Your task to perform on an android device: turn notification dots off Image 0: 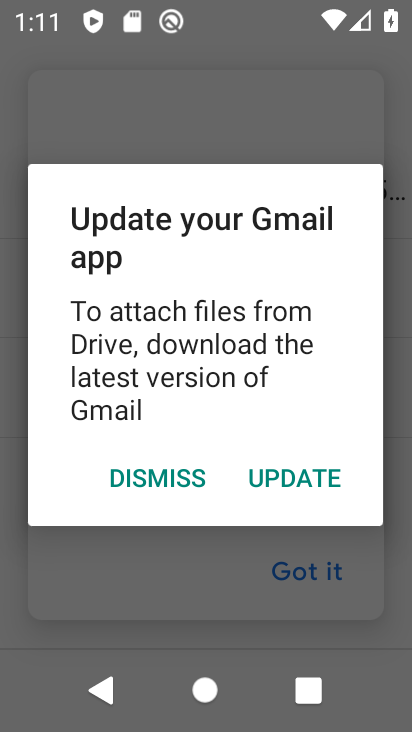
Step 0: press home button
Your task to perform on an android device: turn notification dots off Image 1: 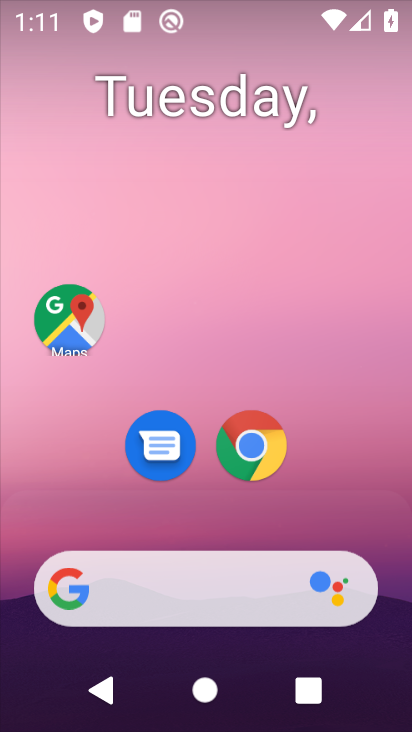
Step 1: drag from (209, 519) to (195, 30)
Your task to perform on an android device: turn notification dots off Image 2: 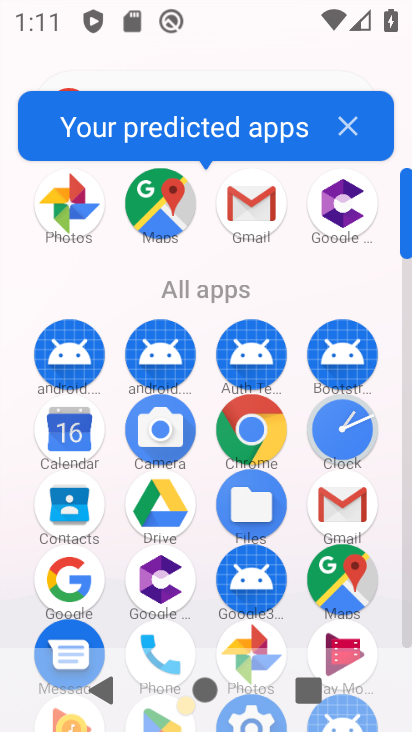
Step 2: drag from (203, 553) to (206, 147)
Your task to perform on an android device: turn notification dots off Image 3: 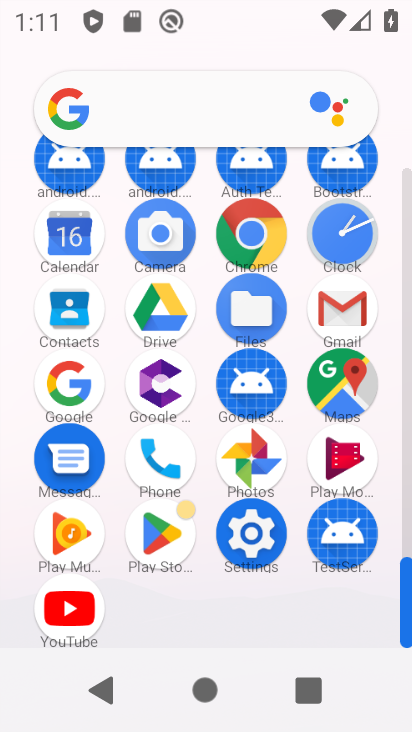
Step 3: click (245, 526)
Your task to perform on an android device: turn notification dots off Image 4: 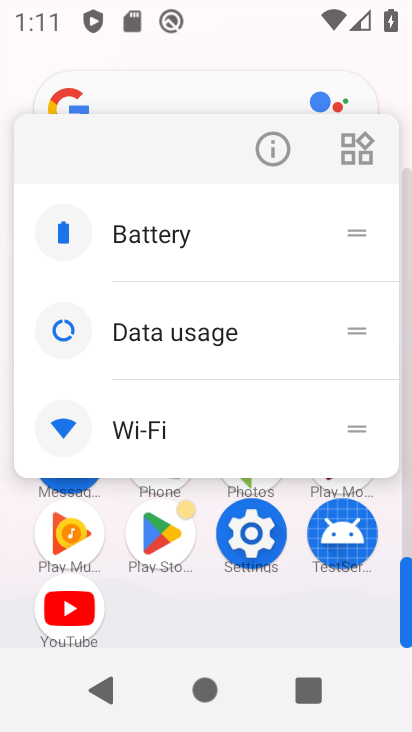
Step 4: click (246, 532)
Your task to perform on an android device: turn notification dots off Image 5: 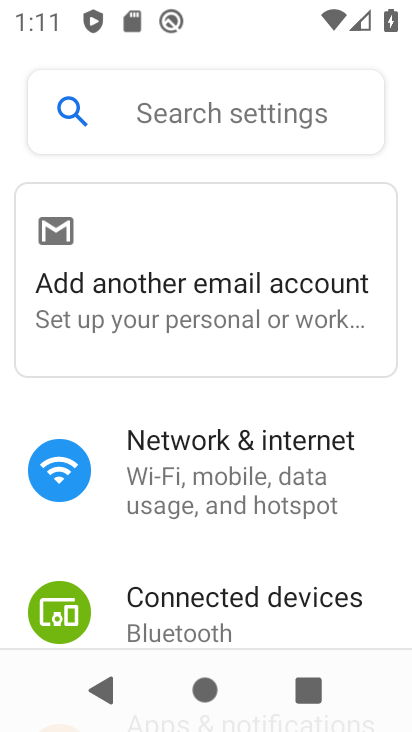
Step 5: drag from (256, 608) to (243, 195)
Your task to perform on an android device: turn notification dots off Image 6: 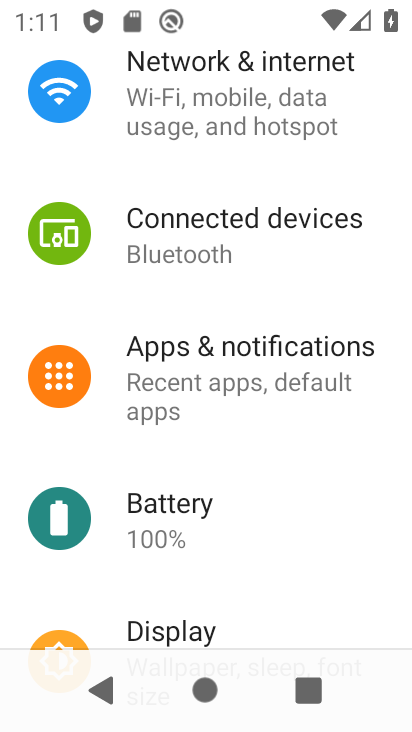
Step 6: click (107, 374)
Your task to perform on an android device: turn notification dots off Image 7: 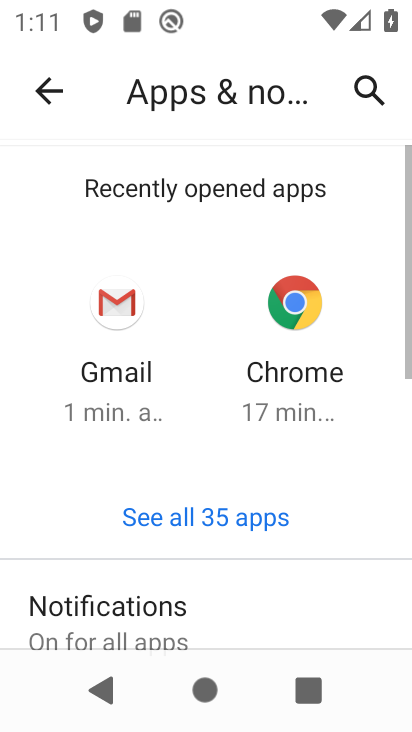
Step 7: click (215, 602)
Your task to perform on an android device: turn notification dots off Image 8: 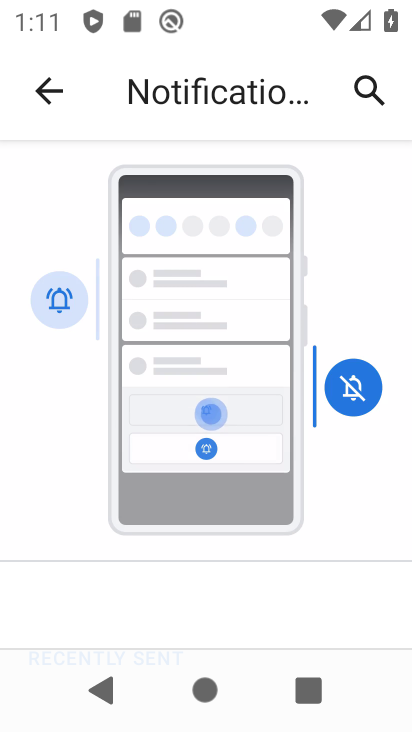
Step 8: drag from (220, 602) to (203, 149)
Your task to perform on an android device: turn notification dots off Image 9: 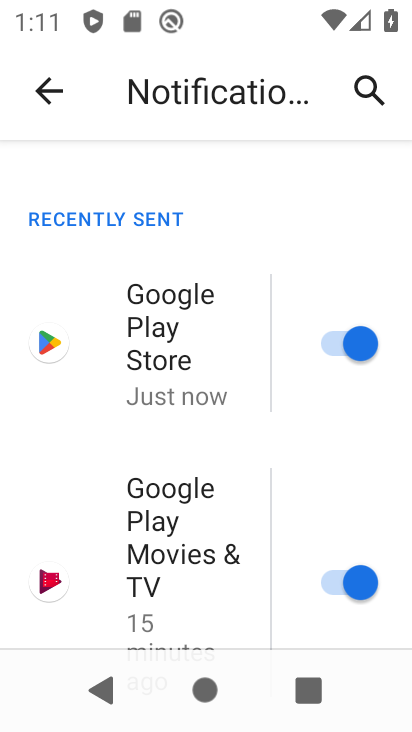
Step 9: drag from (201, 621) to (199, 65)
Your task to perform on an android device: turn notification dots off Image 10: 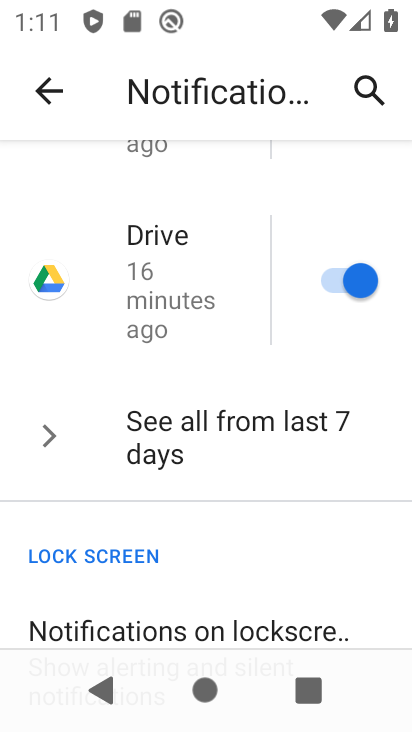
Step 10: drag from (212, 556) to (224, 94)
Your task to perform on an android device: turn notification dots off Image 11: 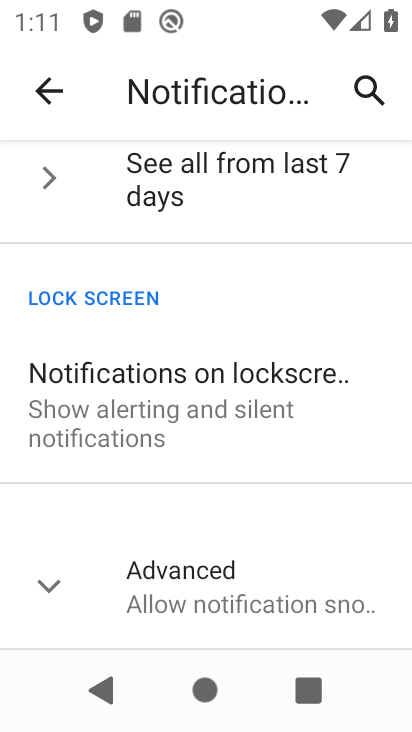
Step 11: drag from (214, 149) to (274, 727)
Your task to perform on an android device: turn notification dots off Image 12: 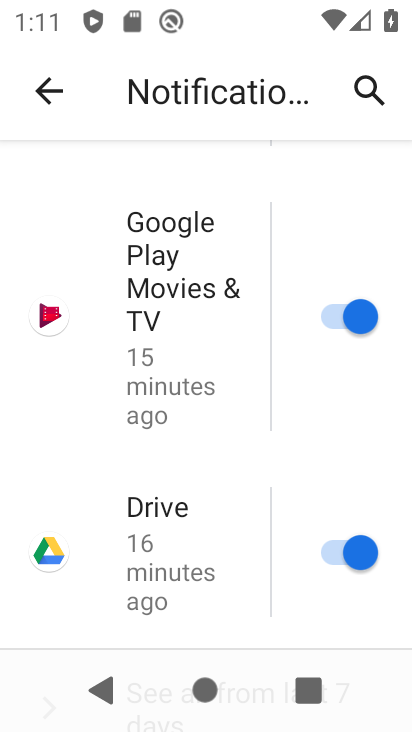
Step 12: drag from (212, 177) to (242, 652)
Your task to perform on an android device: turn notification dots off Image 13: 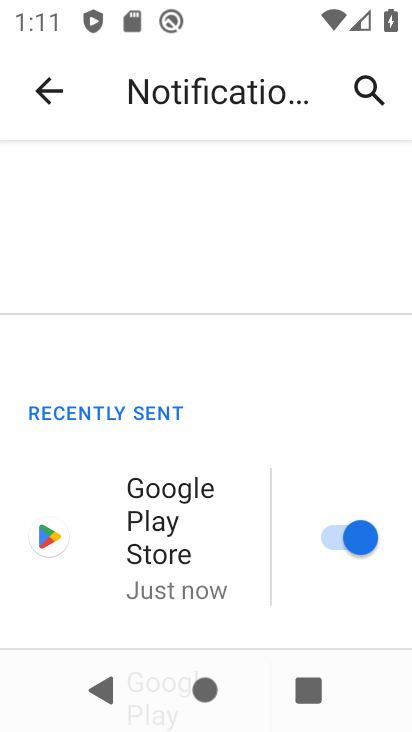
Step 13: drag from (223, 230) to (250, 617)
Your task to perform on an android device: turn notification dots off Image 14: 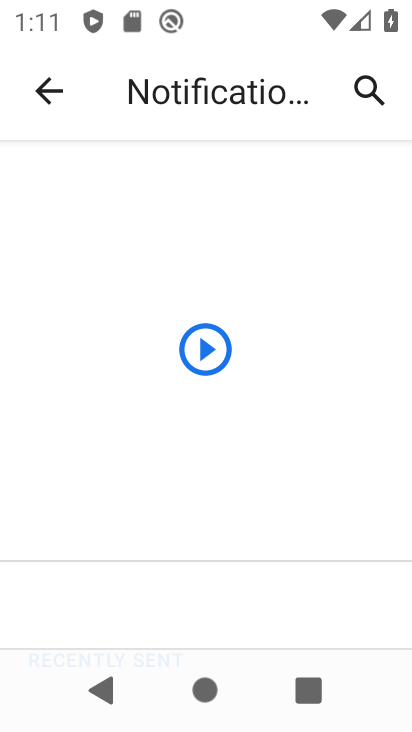
Step 14: drag from (221, 266) to (243, 632)
Your task to perform on an android device: turn notification dots off Image 15: 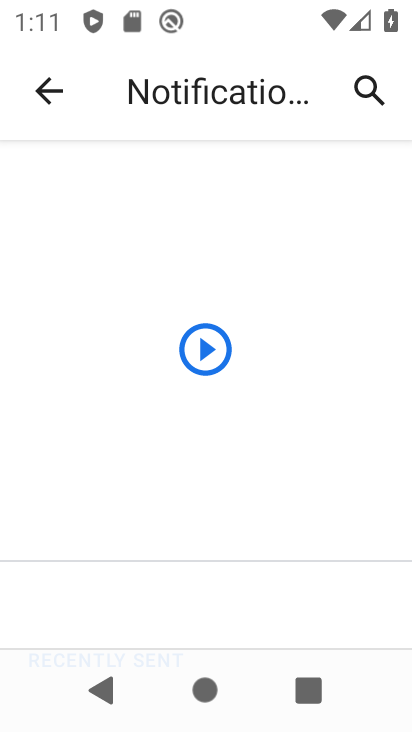
Step 15: drag from (227, 611) to (255, 75)
Your task to perform on an android device: turn notification dots off Image 16: 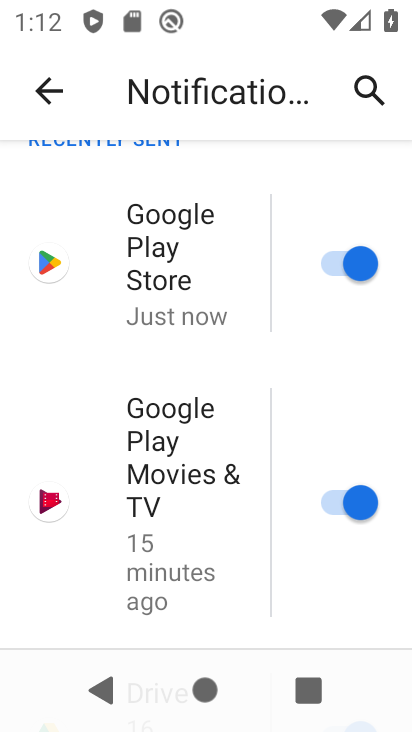
Step 16: drag from (262, 626) to (266, 73)
Your task to perform on an android device: turn notification dots off Image 17: 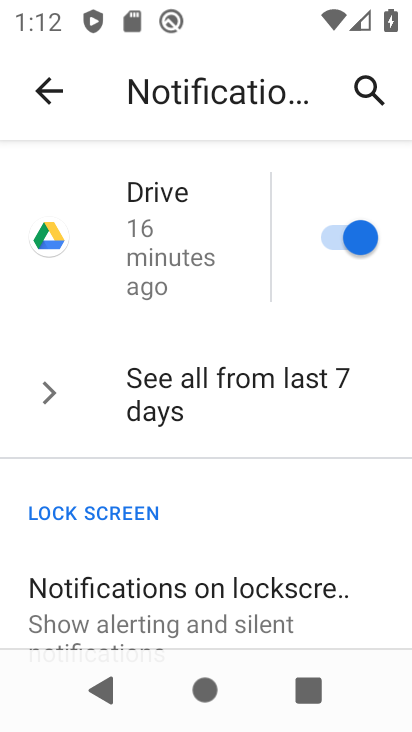
Step 17: drag from (237, 580) to (241, 68)
Your task to perform on an android device: turn notification dots off Image 18: 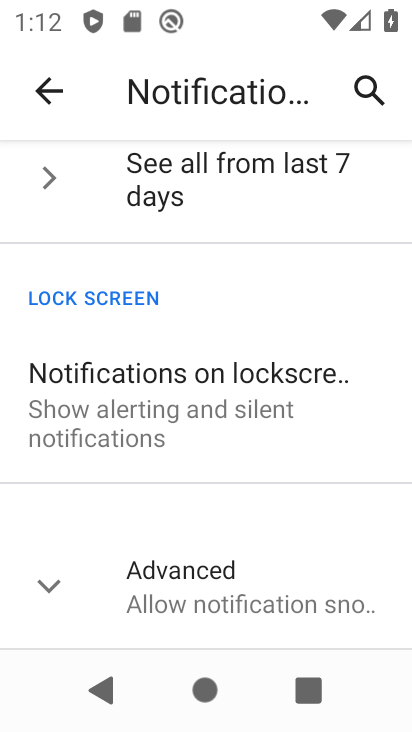
Step 18: click (28, 586)
Your task to perform on an android device: turn notification dots off Image 19: 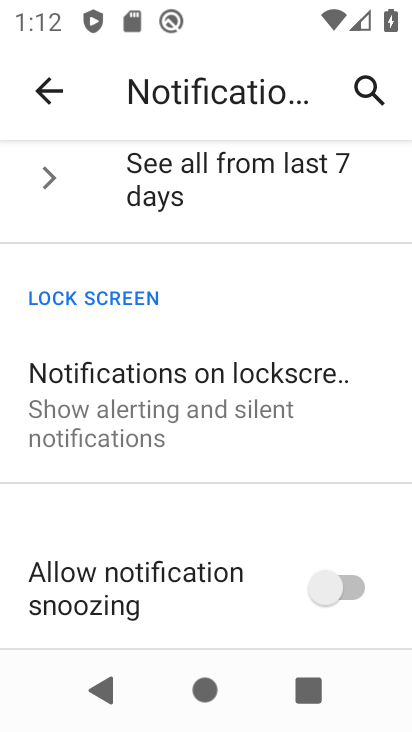
Step 19: drag from (162, 600) to (194, 139)
Your task to perform on an android device: turn notification dots off Image 20: 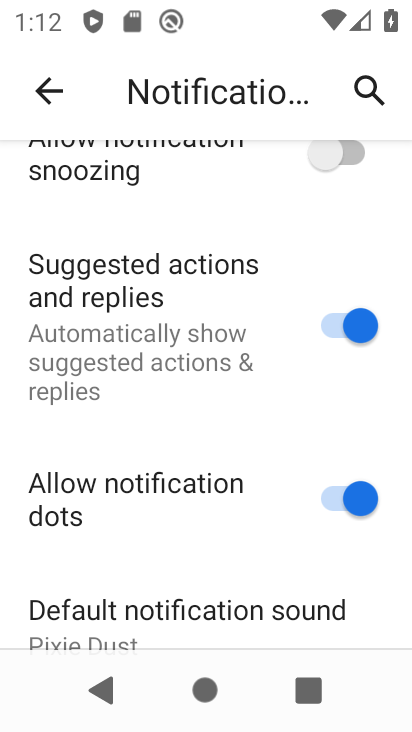
Step 20: click (341, 489)
Your task to perform on an android device: turn notification dots off Image 21: 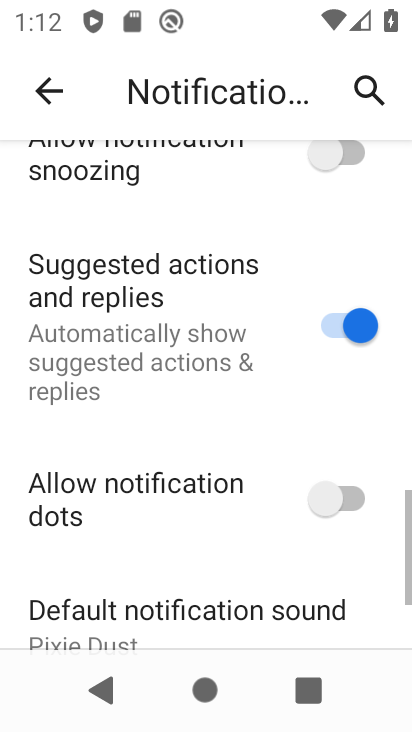
Step 21: task complete